Your task to perform on an android device: open app "Spotify" (install if not already installed), go to login, and select forgot password Image 0: 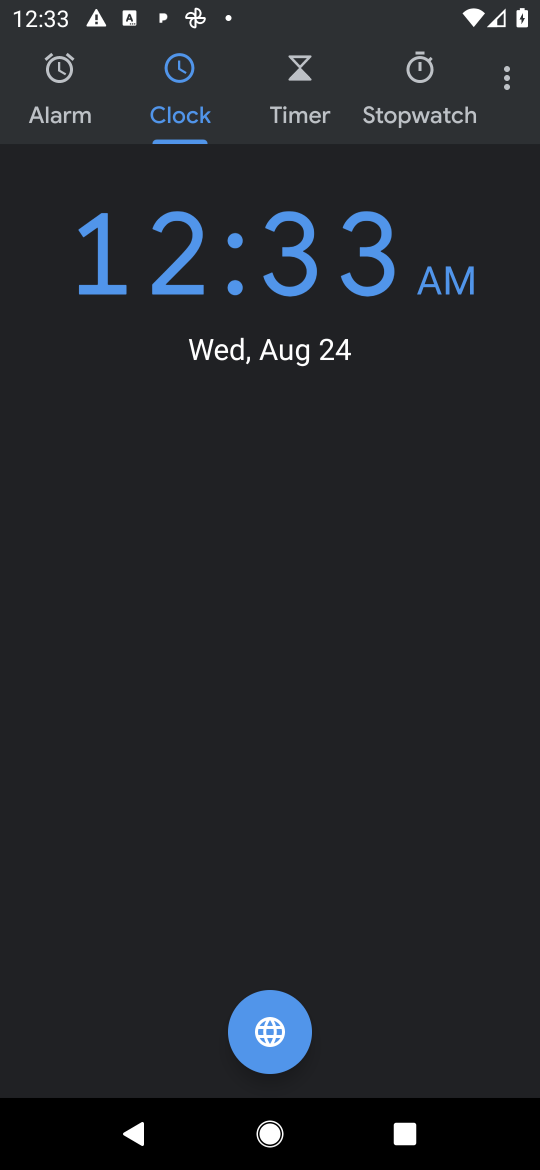
Step 0: press home button
Your task to perform on an android device: open app "Spotify" (install if not already installed), go to login, and select forgot password Image 1: 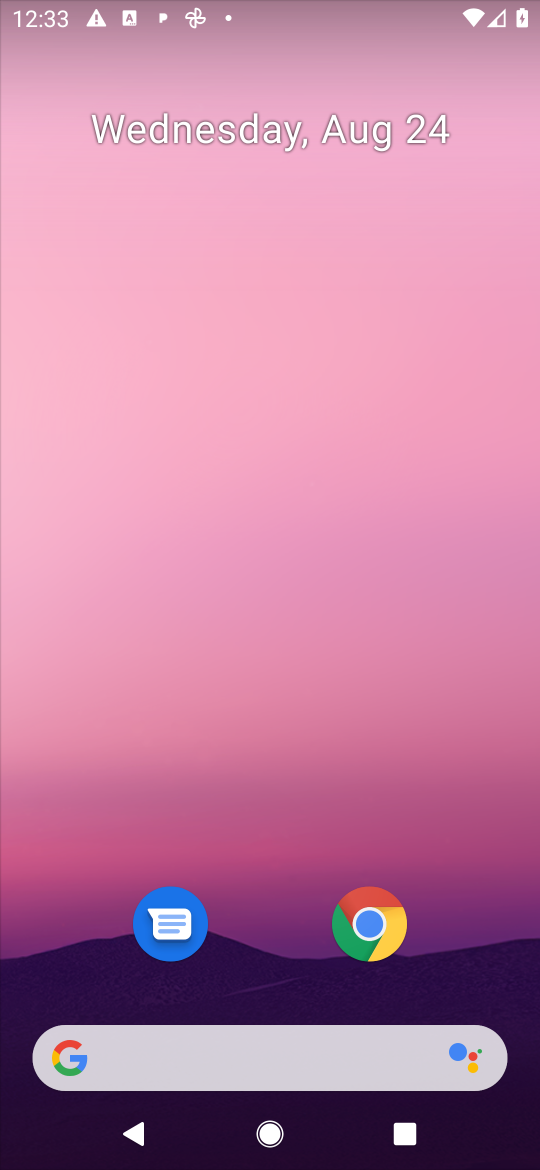
Step 1: drag from (467, 803) to (452, 155)
Your task to perform on an android device: open app "Spotify" (install if not already installed), go to login, and select forgot password Image 2: 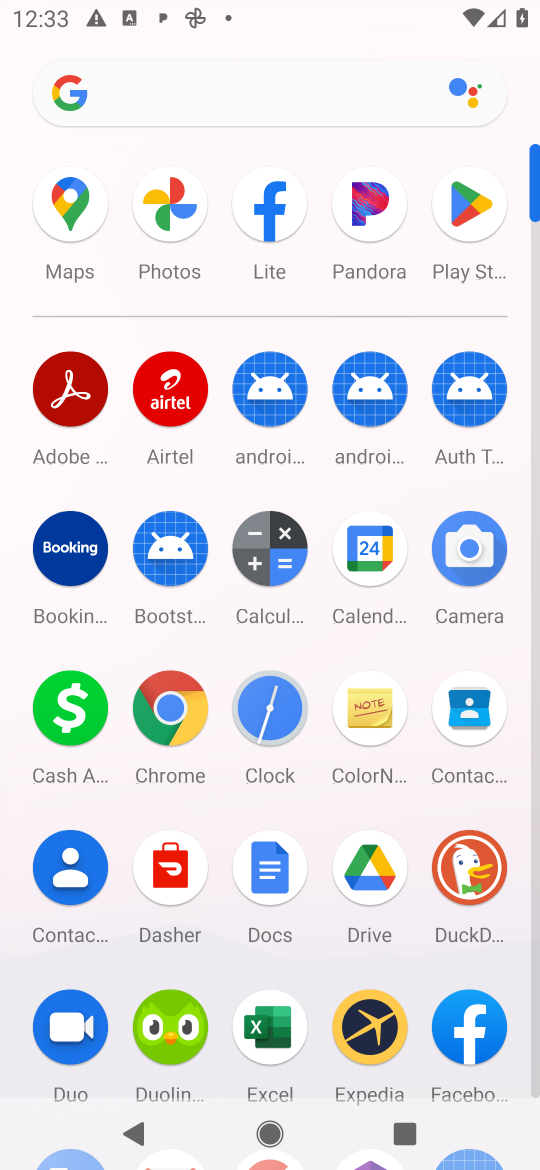
Step 2: click (470, 212)
Your task to perform on an android device: open app "Spotify" (install if not already installed), go to login, and select forgot password Image 3: 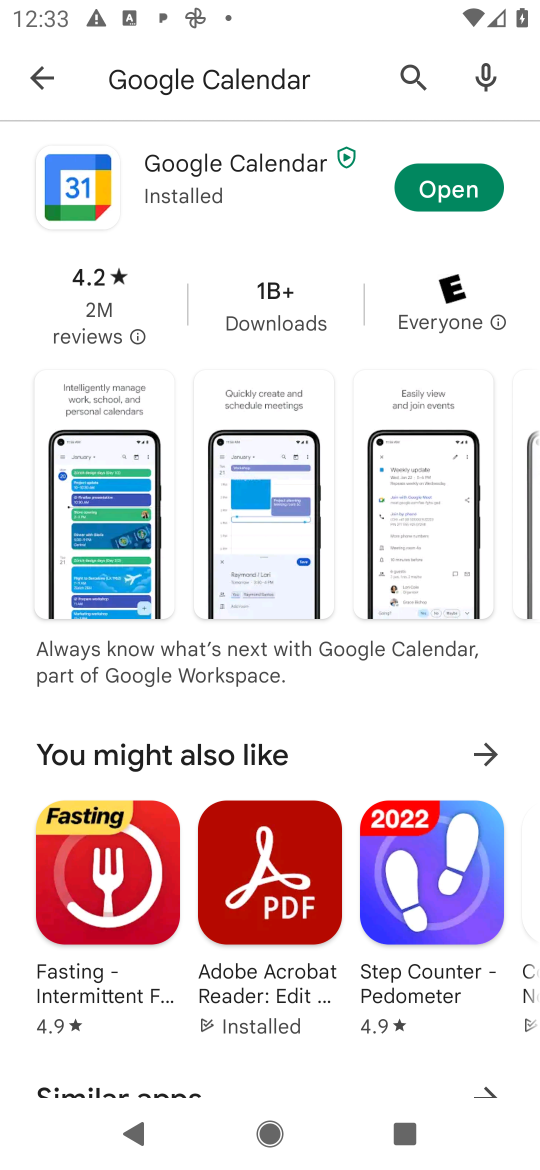
Step 3: press back button
Your task to perform on an android device: open app "Spotify" (install if not already installed), go to login, and select forgot password Image 4: 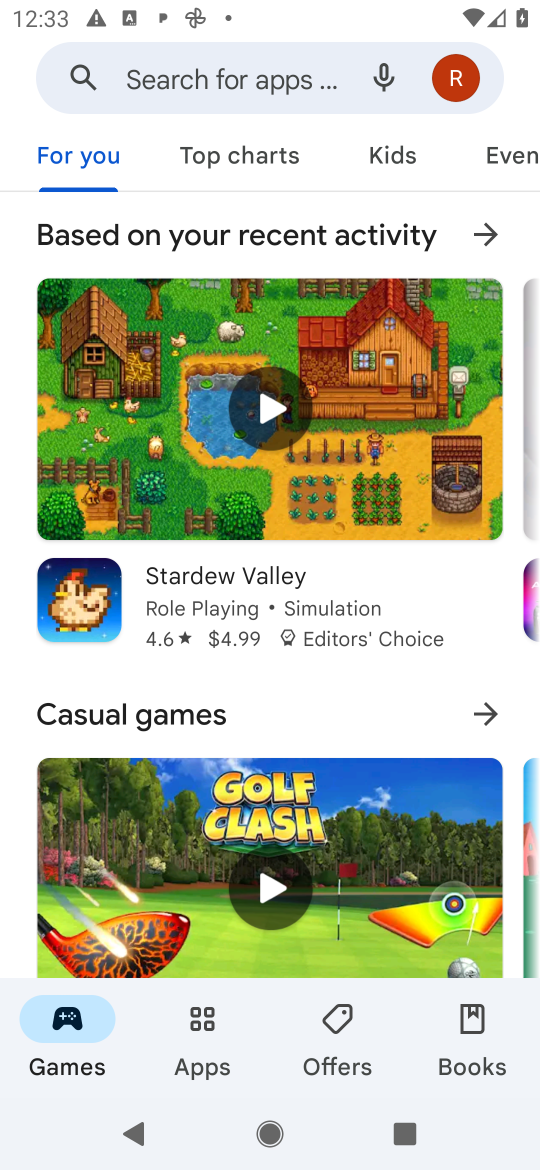
Step 4: click (268, 79)
Your task to perform on an android device: open app "Spotify" (install if not already installed), go to login, and select forgot password Image 5: 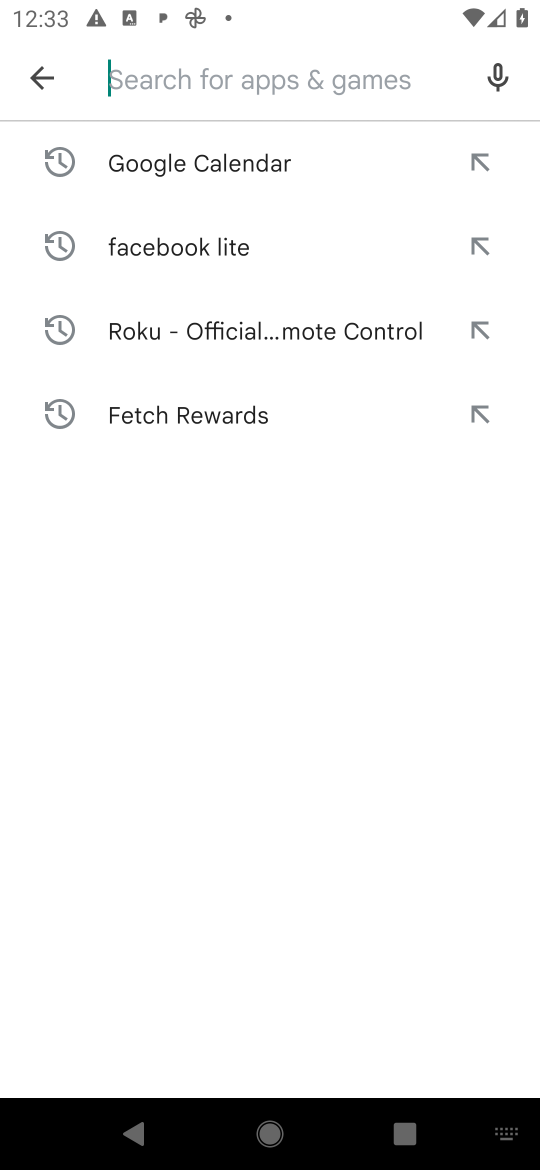
Step 5: press enter
Your task to perform on an android device: open app "Spotify" (install if not already installed), go to login, and select forgot password Image 6: 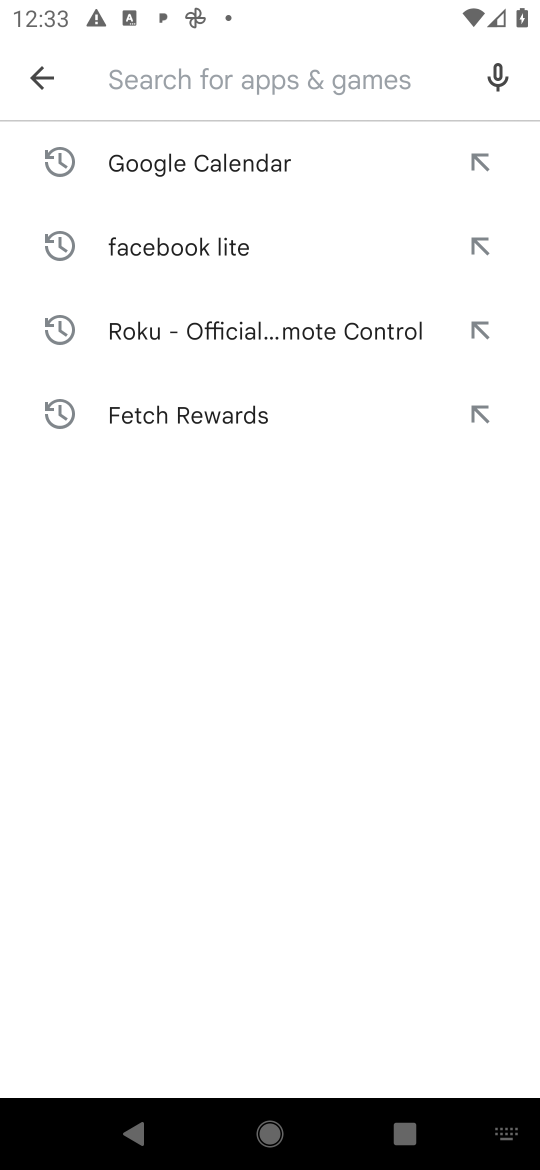
Step 6: type "spotify"
Your task to perform on an android device: open app "Spotify" (install if not already installed), go to login, and select forgot password Image 7: 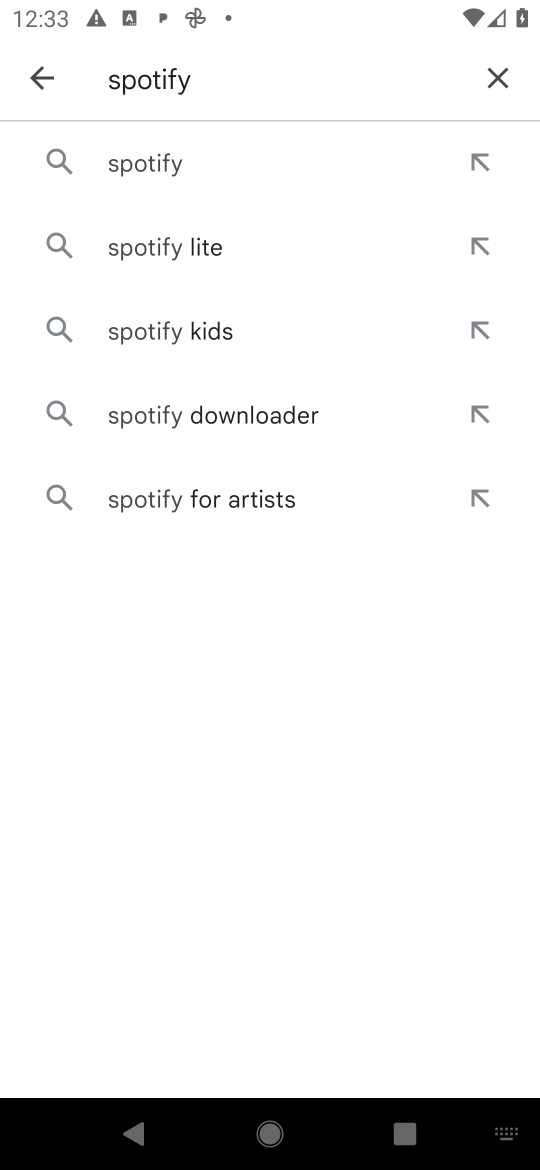
Step 7: click (141, 176)
Your task to perform on an android device: open app "Spotify" (install if not already installed), go to login, and select forgot password Image 8: 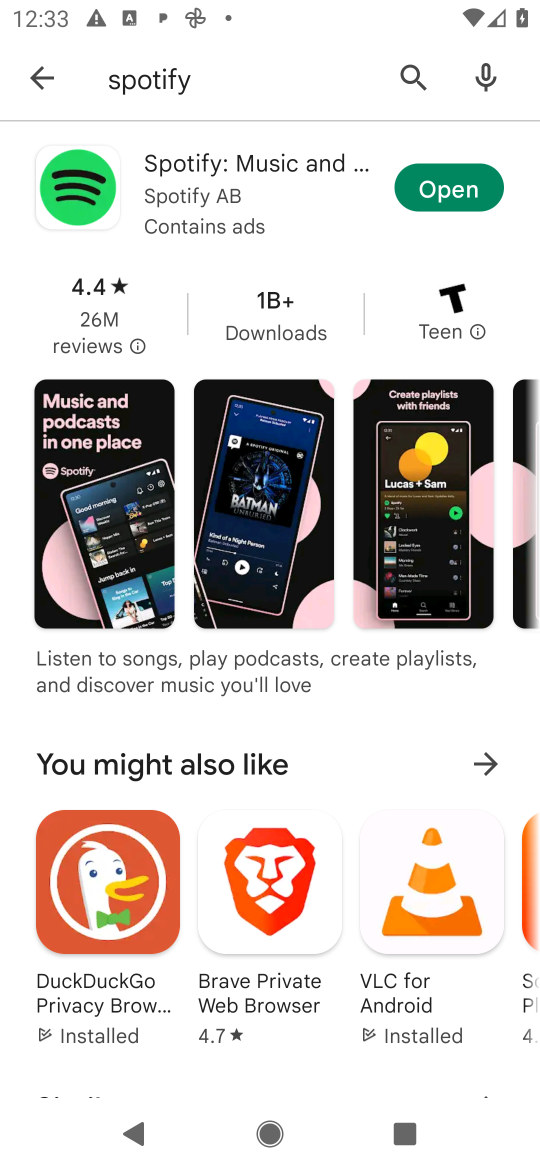
Step 8: click (458, 192)
Your task to perform on an android device: open app "Spotify" (install if not already installed), go to login, and select forgot password Image 9: 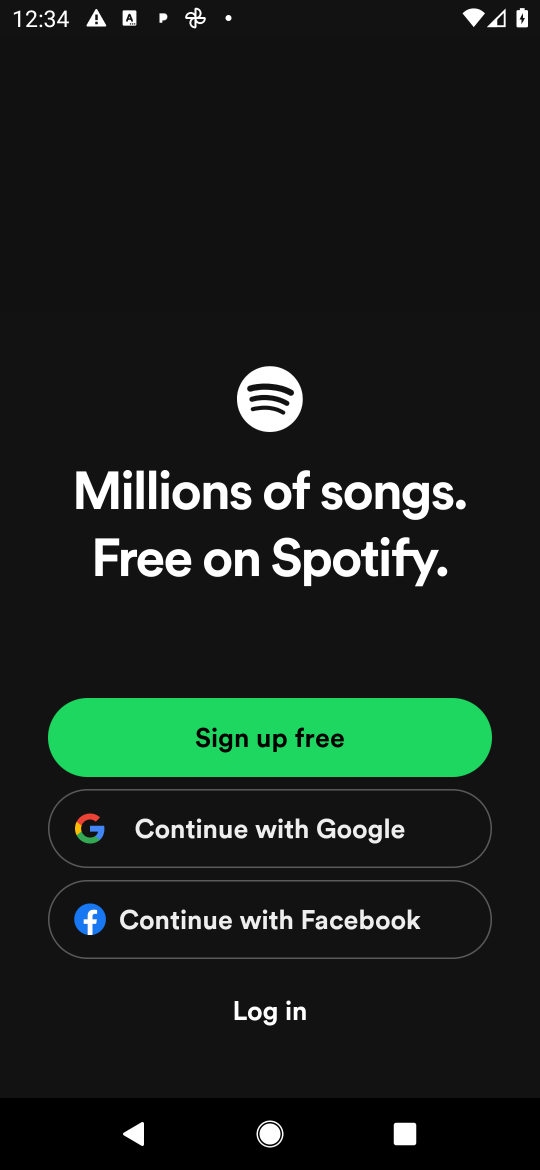
Step 9: click (322, 1005)
Your task to perform on an android device: open app "Spotify" (install if not already installed), go to login, and select forgot password Image 10: 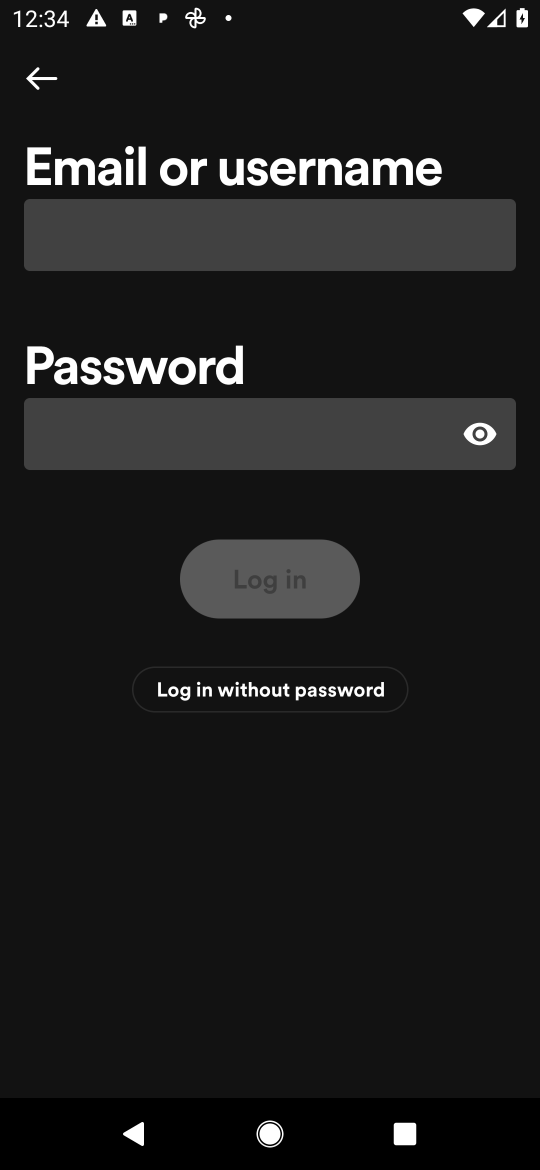
Step 10: task complete